Your task to perform on an android device: Go to ESPN.com Image 0: 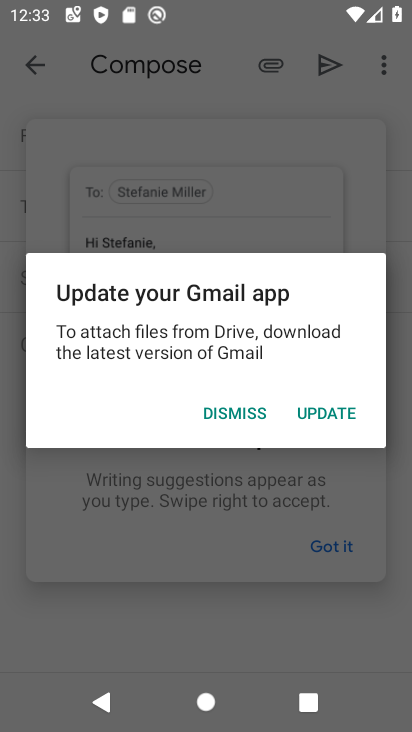
Step 0: press home button
Your task to perform on an android device: Go to ESPN.com Image 1: 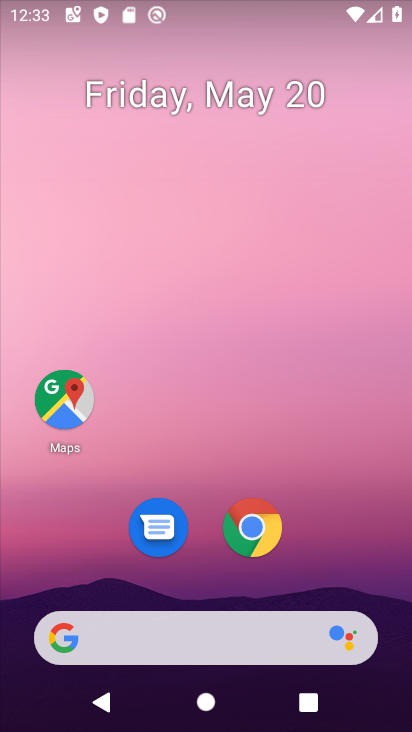
Step 1: drag from (233, 661) to (185, 74)
Your task to perform on an android device: Go to ESPN.com Image 2: 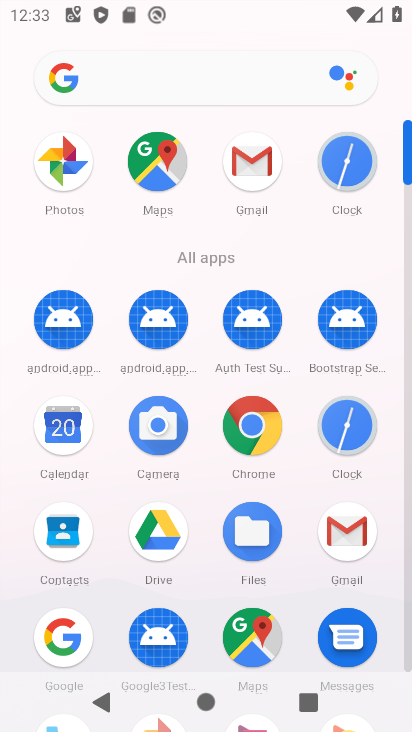
Step 2: click (253, 411)
Your task to perform on an android device: Go to ESPN.com Image 3: 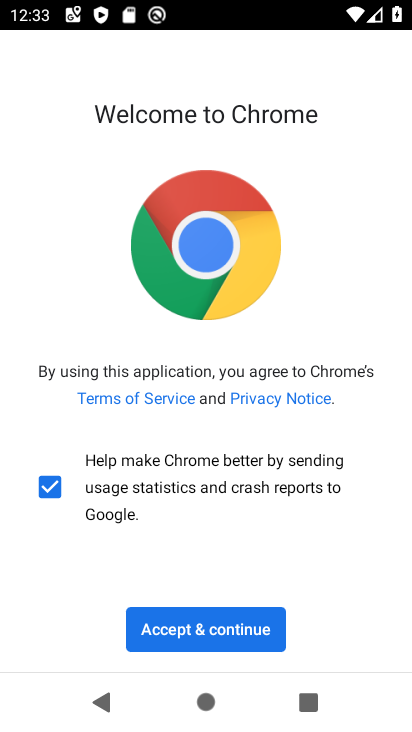
Step 3: click (225, 631)
Your task to perform on an android device: Go to ESPN.com Image 4: 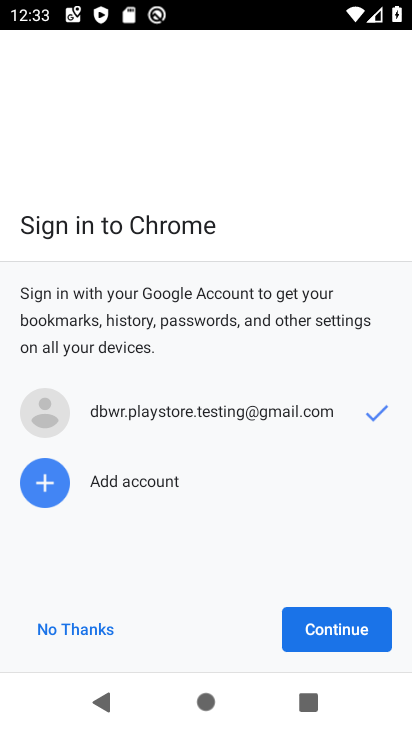
Step 4: click (316, 628)
Your task to perform on an android device: Go to ESPN.com Image 5: 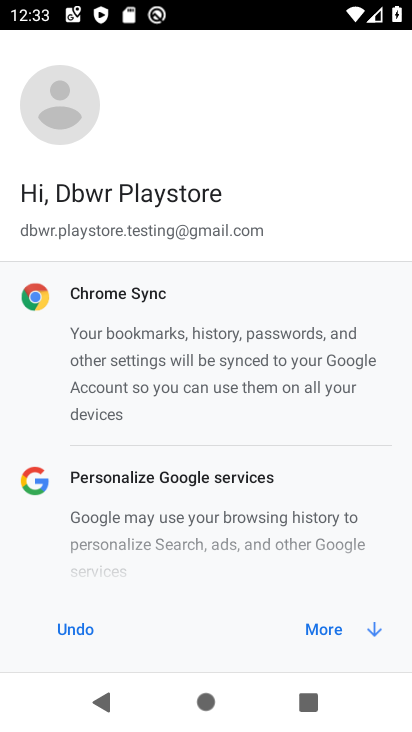
Step 5: click (360, 621)
Your task to perform on an android device: Go to ESPN.com Image 6: 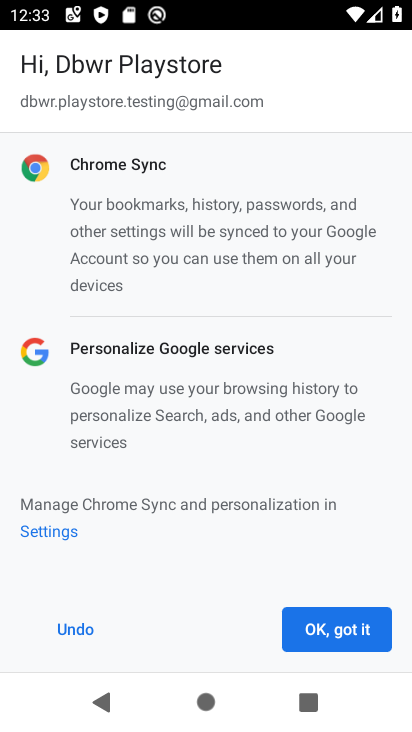
Step 6: click (344, 626)
Your task to perform on an android device: Go to ESPN.com Image 7: 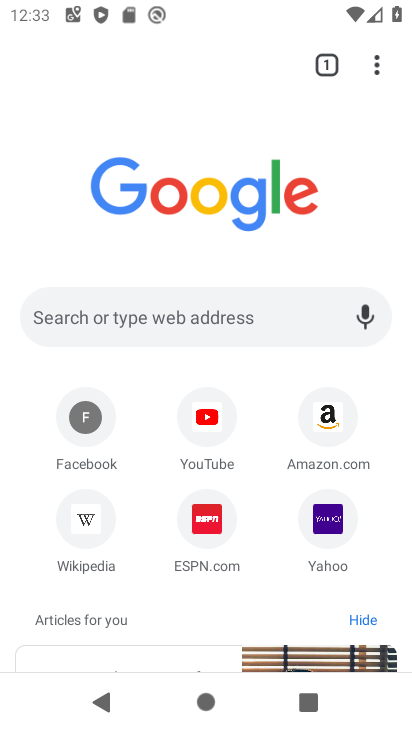
Step 7: click (203, 526)
Your task to perform on an android device: Go to ESPN.com Image 8: 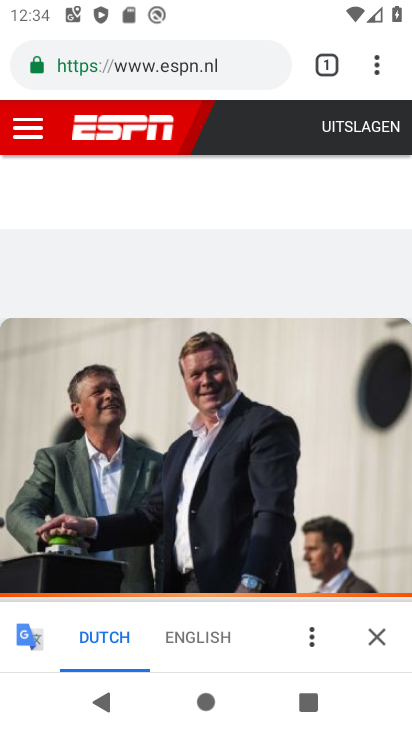
Step 8: task complete